Your task to perform on an android device: empty trash in google photos Image 0: 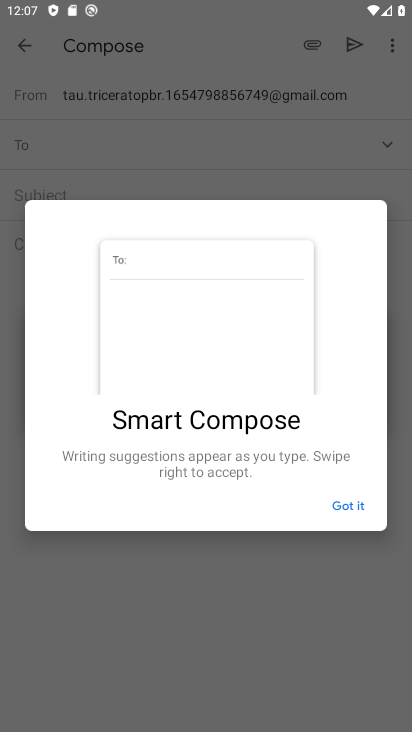
Step 0: click (347, 519)
Your task to perform on an android device: empty trash in google photos Image 1: 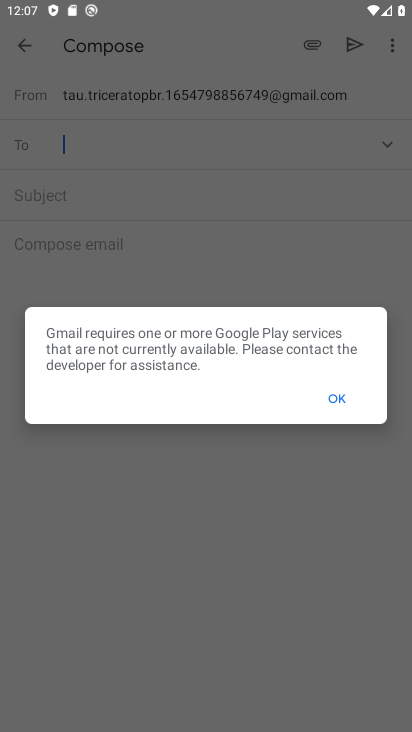
Step 1: click (334, 401)
Your task to perform on an android device: empty trash in google photos Image 2: 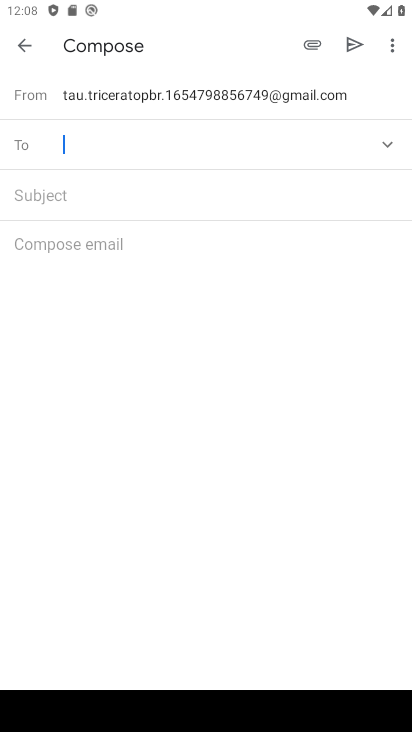
Step 2: click (15, 51)
Your task to perform on an android device: empty trash in google photos Image 3: 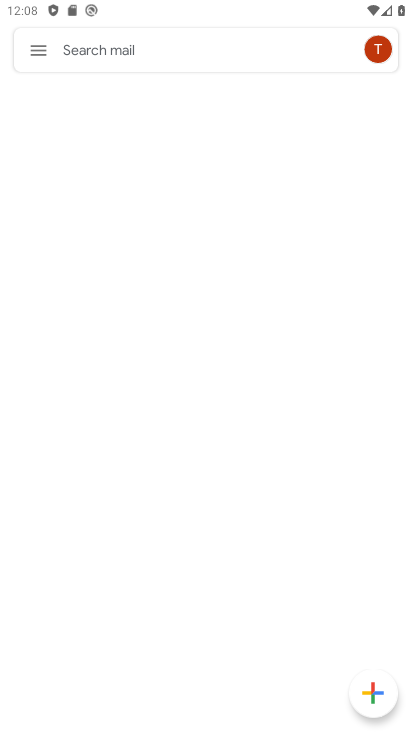
Step 3: click (17, 51)
Your task to perform on an android device: empty trash in google photos Image 4: 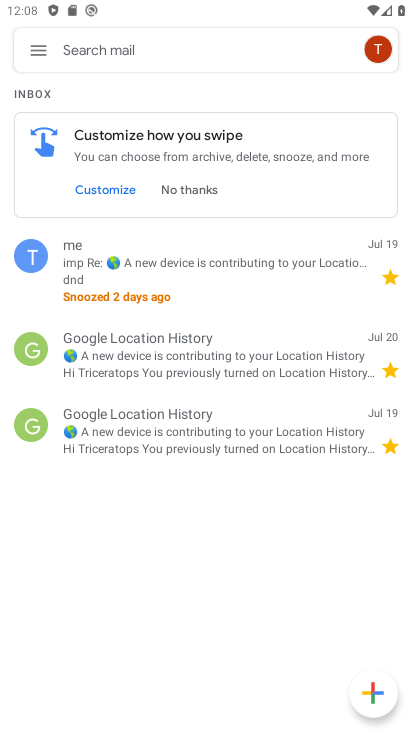
Step 4: click (36, 54)
Your task to perform on an android device: empty trash in google photos Image 5: 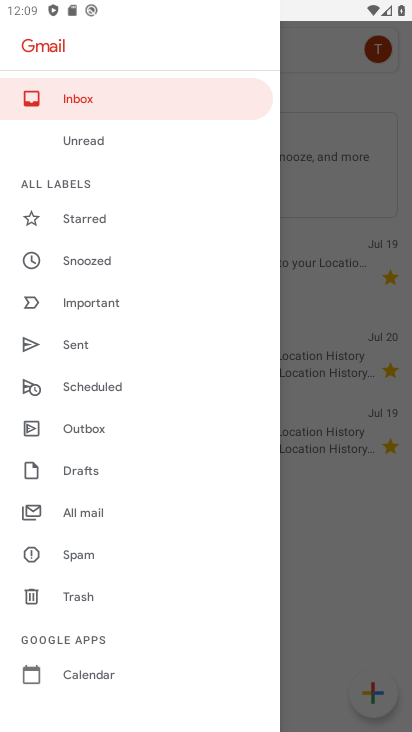
Step 5: click (84, 599)
Your task to perform on an android device: empty trash in google photos Image 6: 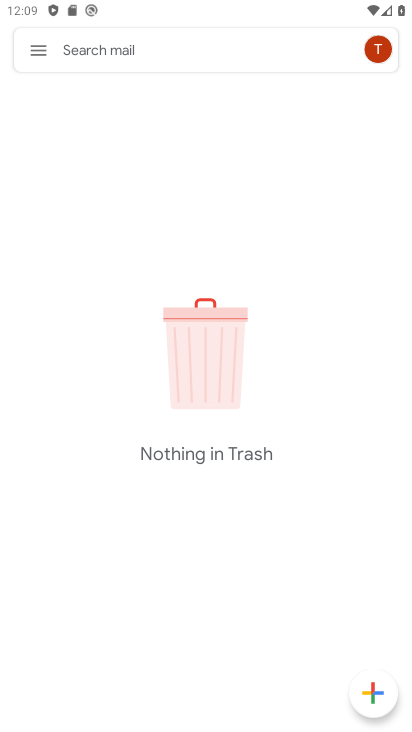
Step 6: task complete